Your task to perform on an android device: turn on translation in the chrome app Image 0: 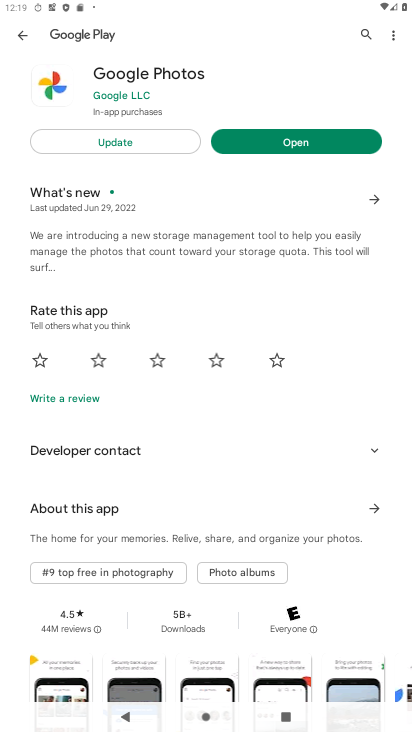
Step 0: press home button
Your task to perform on an android device: turn on translation in the chrome app Image 1: 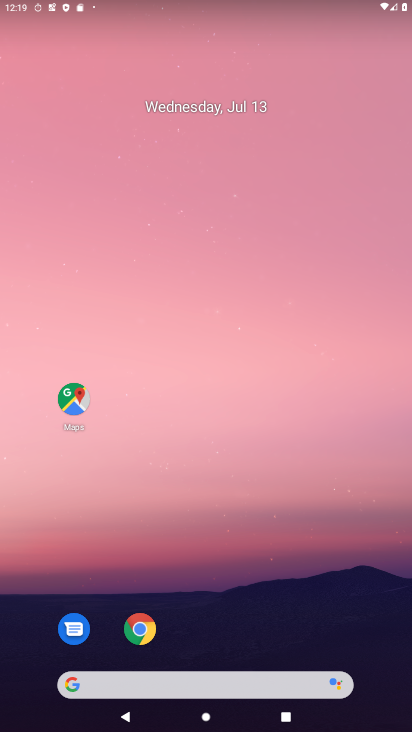
Step 1: click (152, 638)
Your task to perform on an android device: turn on translation in the chrome app Image 2: 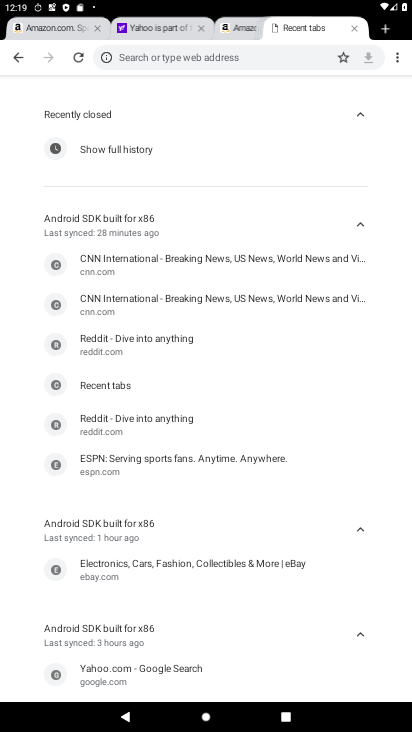
Step 2: click (392, 57)
Your task to perform on an android device: turn on translation in the chrome app Image 3: 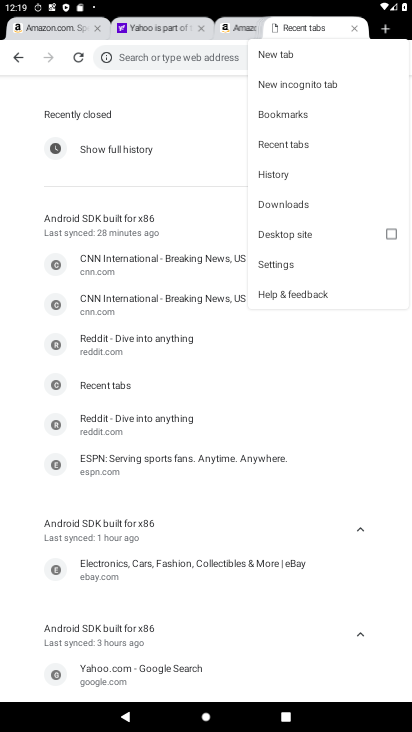
Step 3: click (306, 269)
Your task to perform on an android device: turn on translation in the chrome app Image 4: 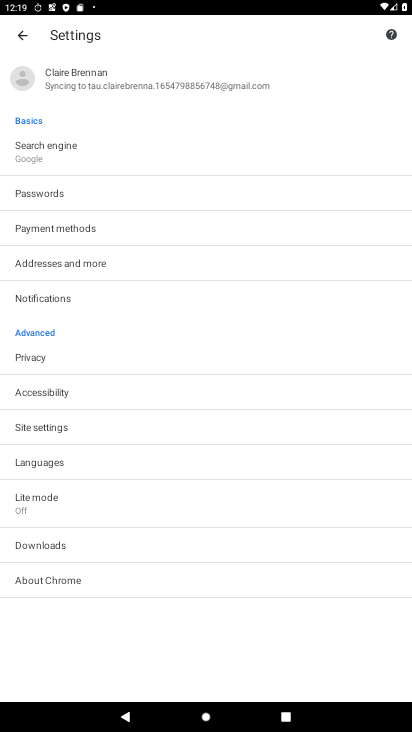
Step 4: click (83, 464)
Your task to perform on an android device: turn on translation in the chrome app Image 5: 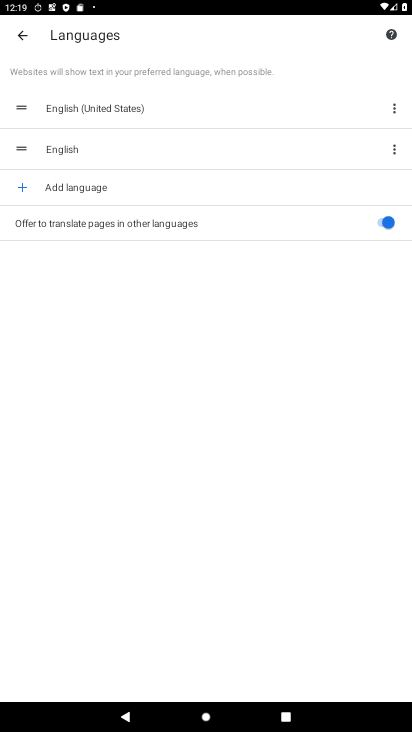
Step 5: task complete